Your task to perform on an android device: Open Maps and search for coffee Image 0: 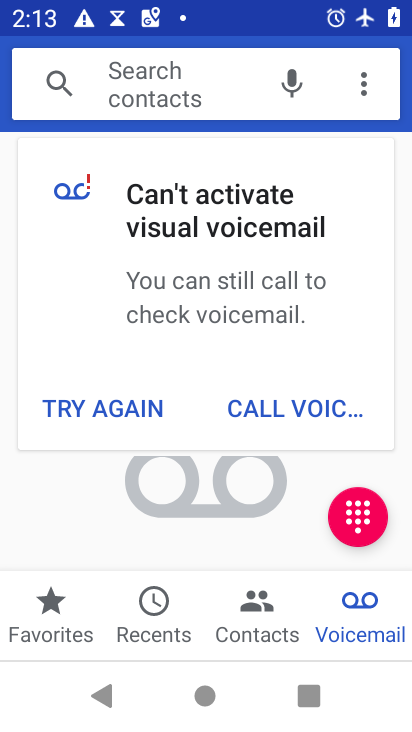
Step 0: press back button
Your task to perform on an android device: Open Maps and search for coffee Image 1: 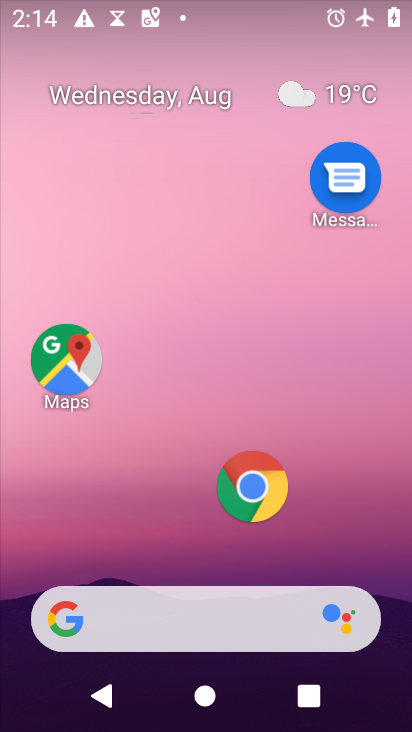
Step 1: click (52, 377)
Your task to perform on an android device: Open Maps and search for coffee Image 2: 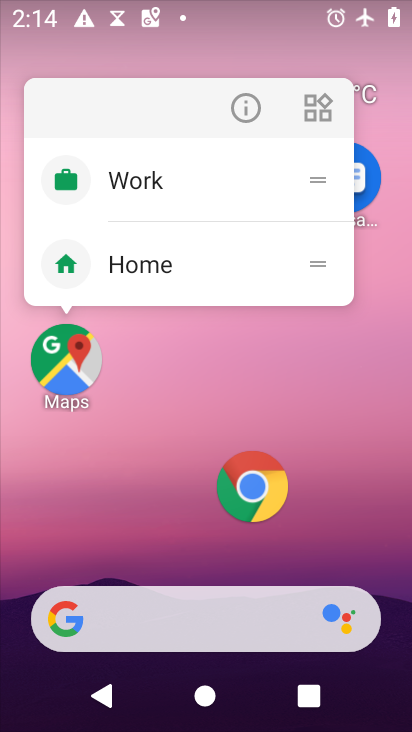
Step 2: click (70, 373)
Your task to perform on an android device: Open Maps and search for coffee Image 3: 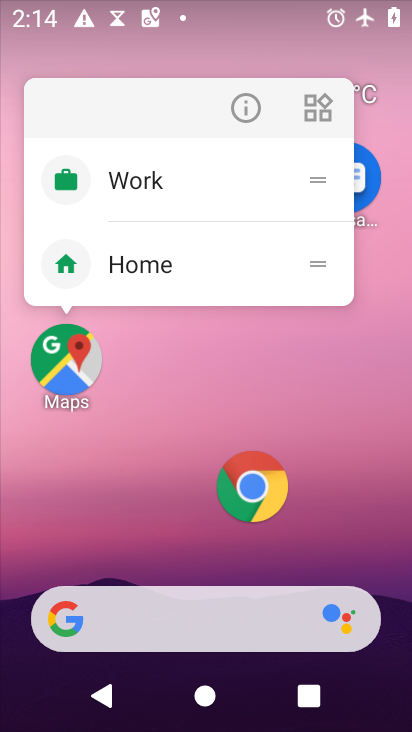
Step 3: click (70, 357)
Your task to perform on an android device: Open Maps and search for coffee Image 4: 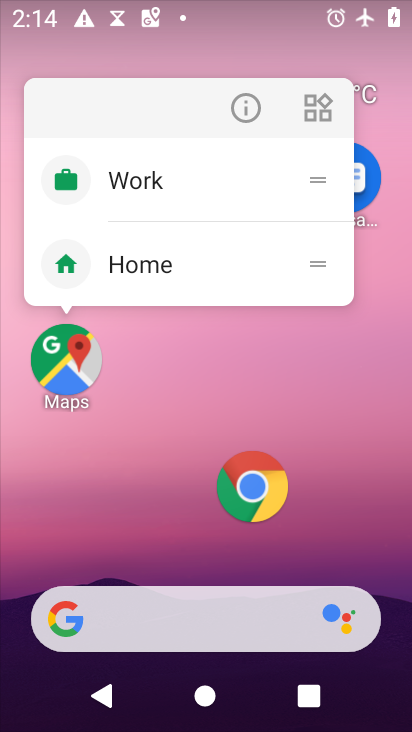
Step 4: click (57, 360)
Your task to perform on an android device: Open Maps and search for coffee Image 5: 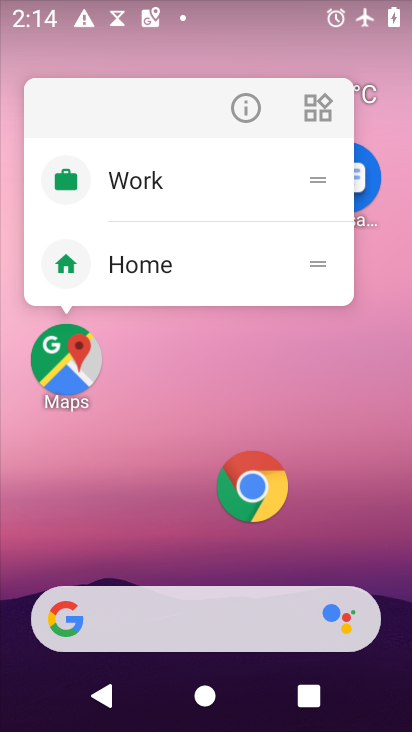
Step 5: click (73, 359)
Your task to perform on an android device: Open Maps and search for coffee Image 6: 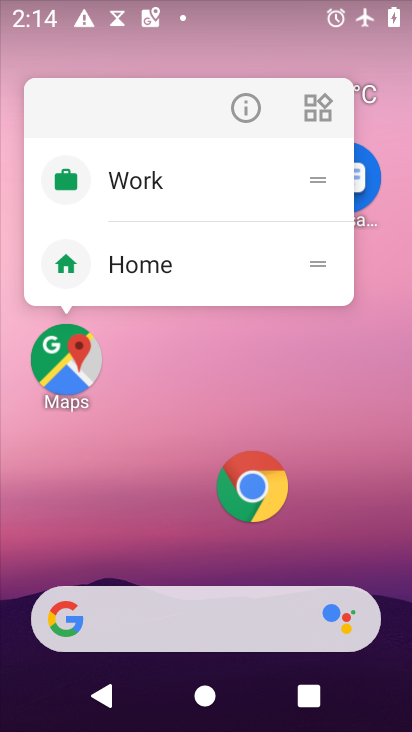
Step 6: click (72, 361)
Your task to perform on an android device: Open Maps and search for coffee Image 7: 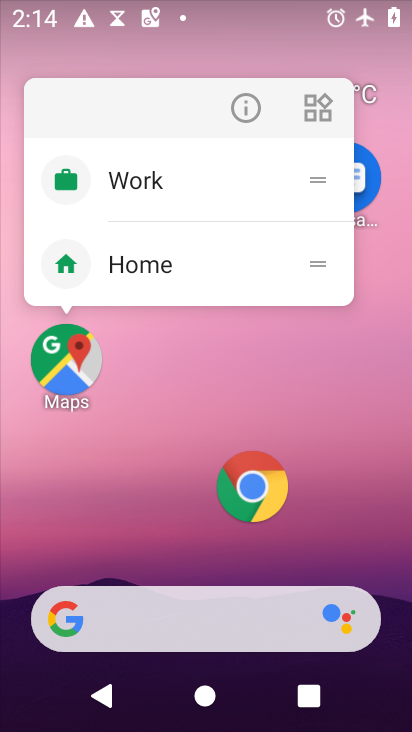
Step 7: click (58, 364)
Your task to perform on an android device: Open Maps and search for coffee Image 8: 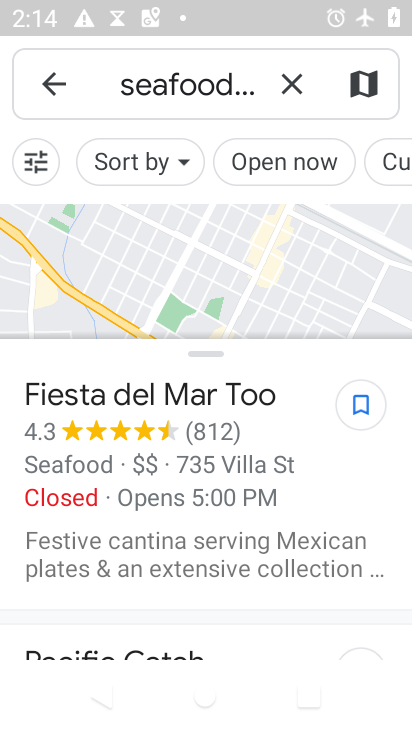
Step 8: click (294, 88)
Your task to perform on an android device: Open Maps and search for coffee Image 9: 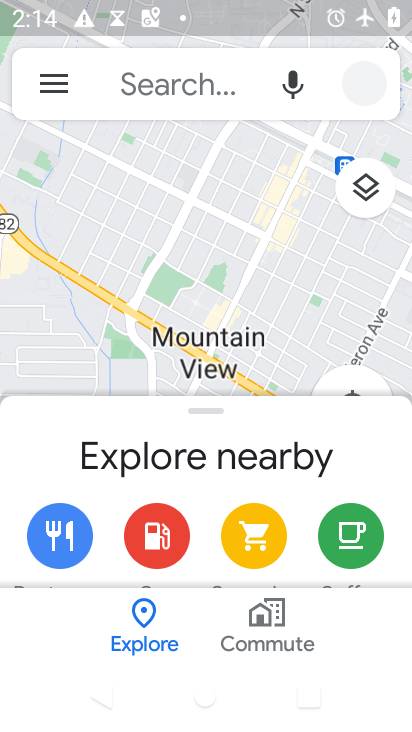
Step 9: click (162, 82)
Your task to perform on an android device: Open Maps and search for coffee Image 10: 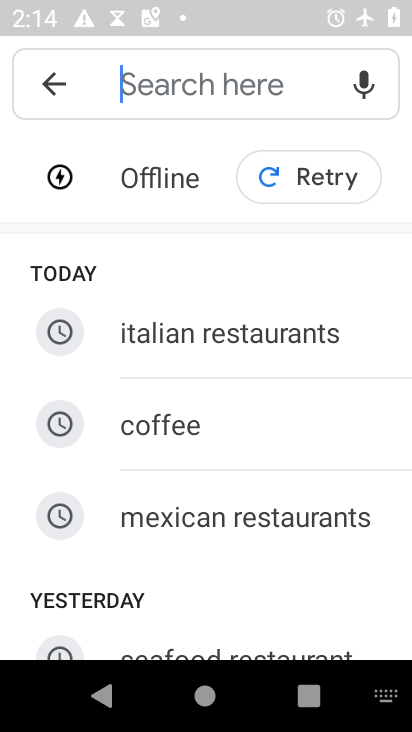
Step 10: type "coffee"
Your task to perform on an android device: Open Maps and search for coffee Image 11: 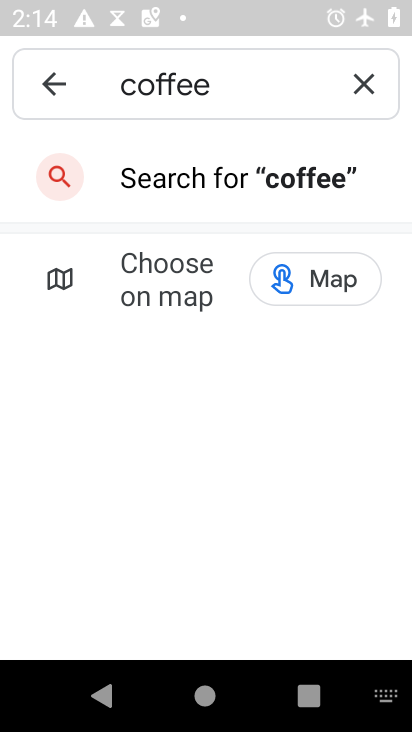
Step 11: drag from (359, 24) to (274, 535)
Your task to perform on an android device: Open Maps and search for coffee Image 12: 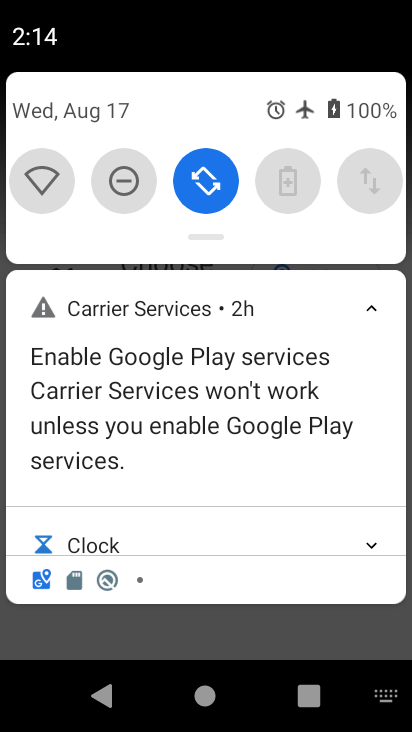
Step 12: drag from (191, 226) to (202, 687)
Your task to perform on an android device: Open Maps and search for coffee Image 13: 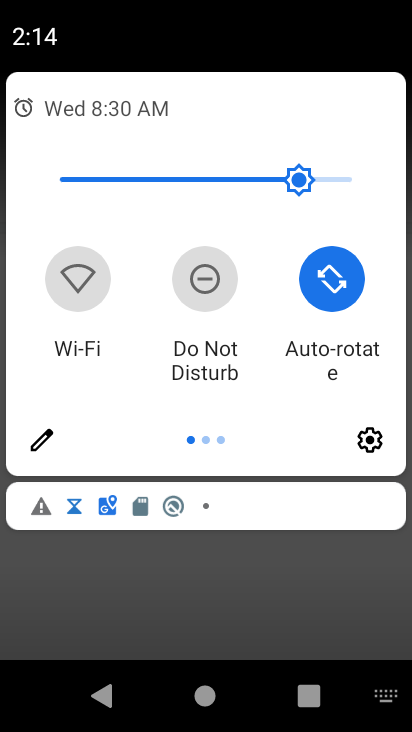
Step 13: drag from (357, 295) to (57, 241)
Your task to perform on an android device: Open Maps and search for coffee Image 14: 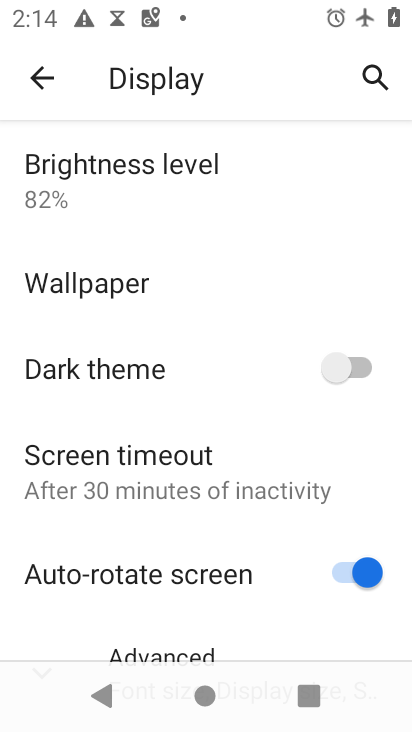
Step 14: press back button
Your task to perform on an android device: Open Maps and search for coffee Image 15: 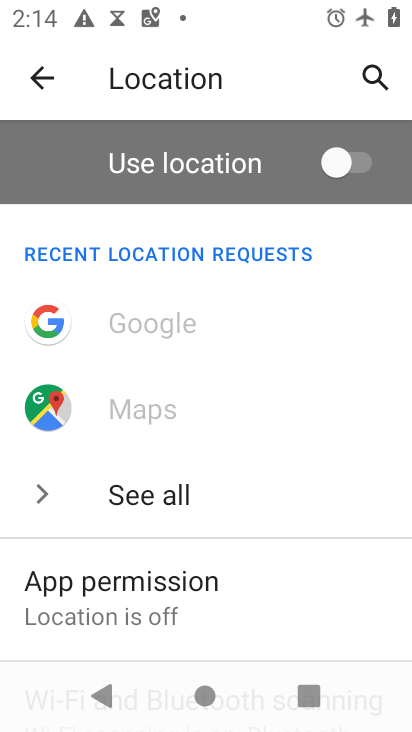
Step 15: drag from (341, 7) to (272, 642)
Your task to perform on an android device: Open Maps and search for coffee Image 16: 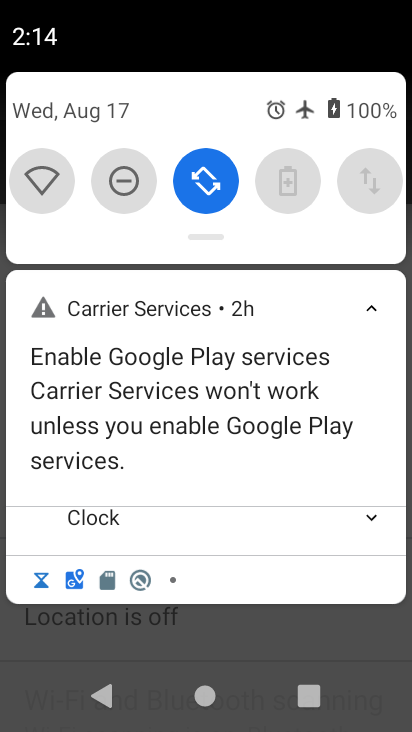
Step 16: drag from (224, 222) to (237, 707)
Your task to perform on an android device: Open Maps and search for coffee Image 17: 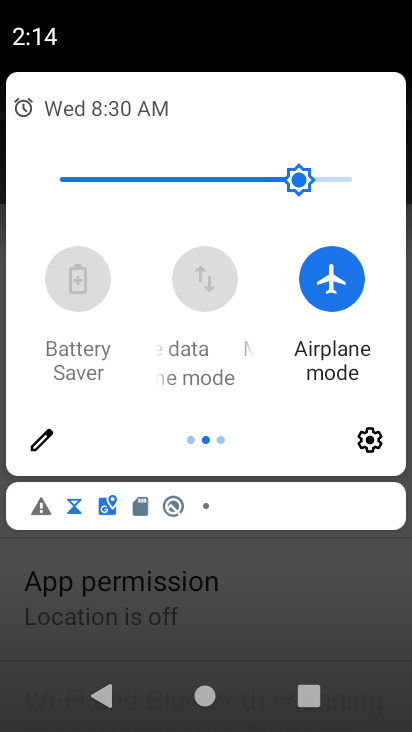
Step 17: drag from (353, 280) to (33, 280)
Your task to perform on an android device: Open Maps and search for coffee Image 18: 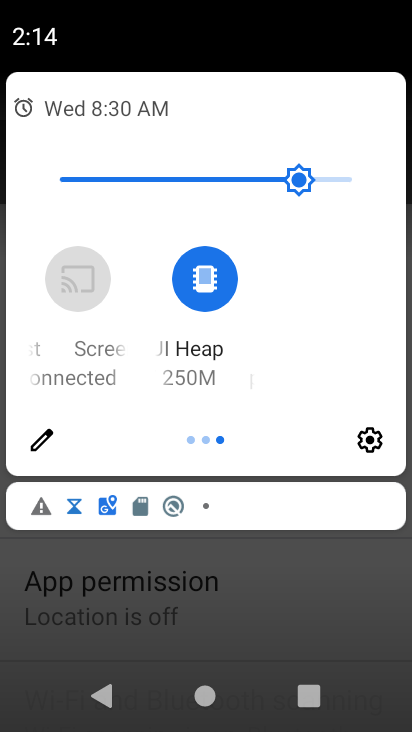
Step 18: drag from (69, 289) to (360, 290)
Your task to perform on an android device: Open Maps and search for coffee Image 19: 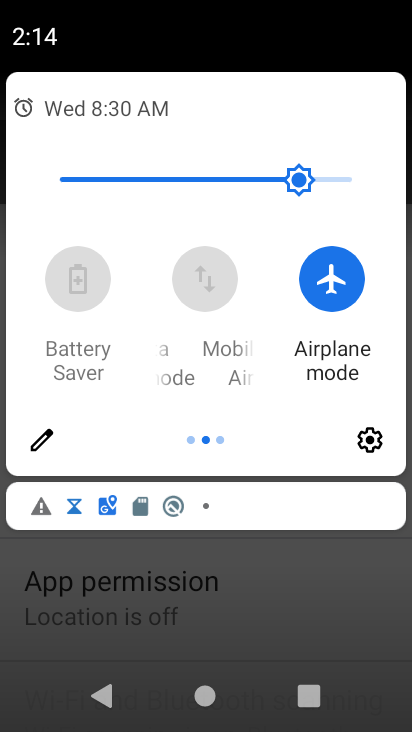
Step 19: click (326, 268)
Your task to perform on an android device: Open Maps and search for coffee Image 20: 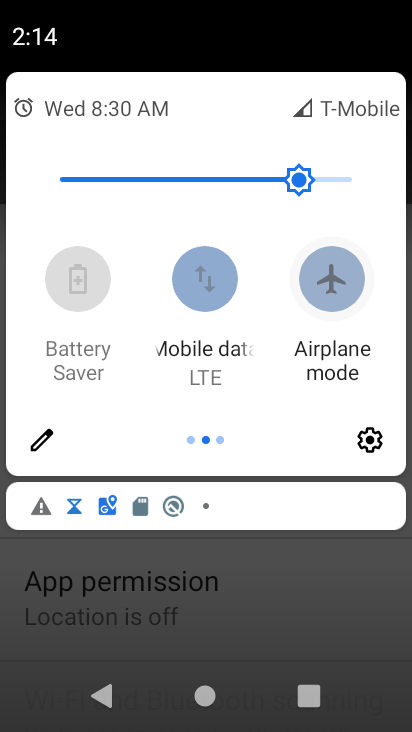
Step 20: click (203, 580)
Your task to perform on an android device: Open Maps and search for coffee Image 21: 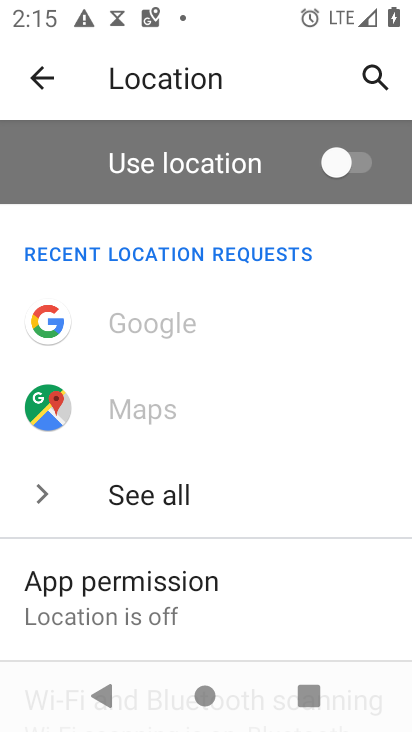
Step 21: press back button
Your task to perform on an android device: Open Maps and search for coffee Image 22: 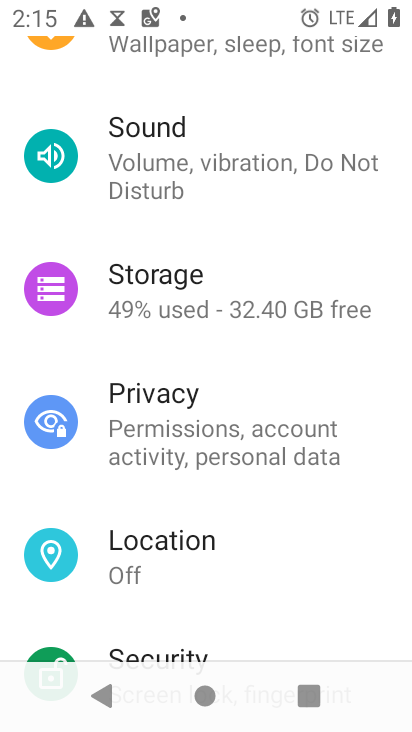
Step 22: press back button
Your task to perform on an android device: Open Maps and search for coffee Image 23: 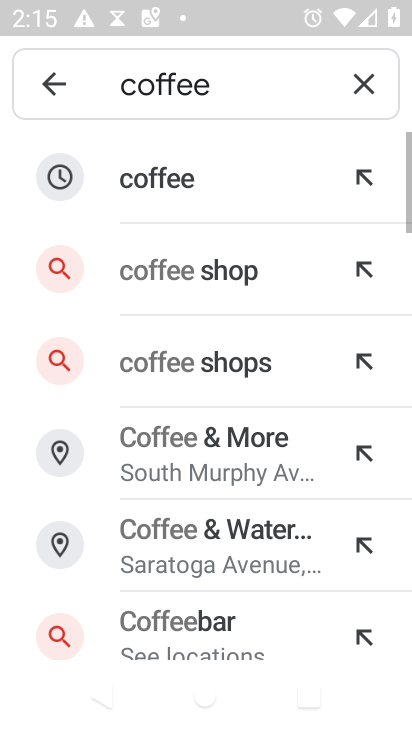
Step 23: click (222, 176)
Your task to perform on an android device: Open Maps and search for coffee Image 24: 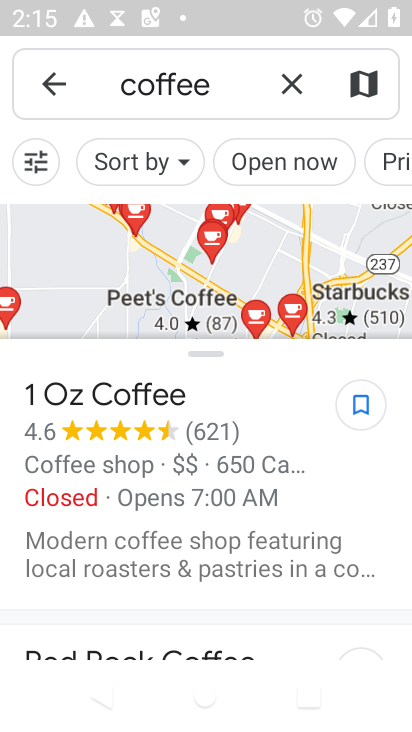
Step 24: task complete